Your task to perform on an android device: Go to Reddit.com Image 0: 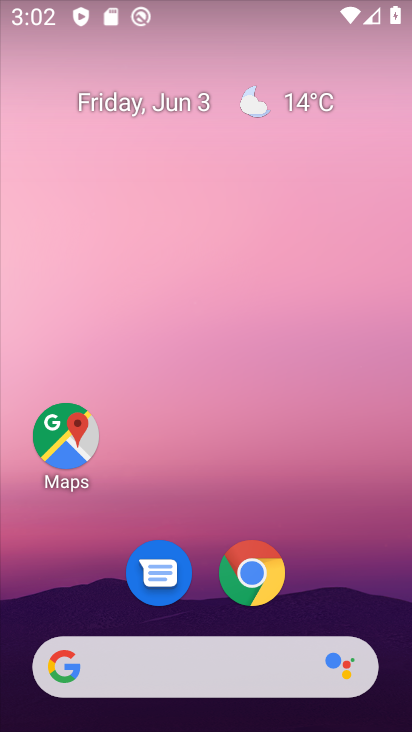
Step 0: drag from (205, 662) to (275, 12)
Your task to perform on an android device: Go to Reddit.com Image 1: 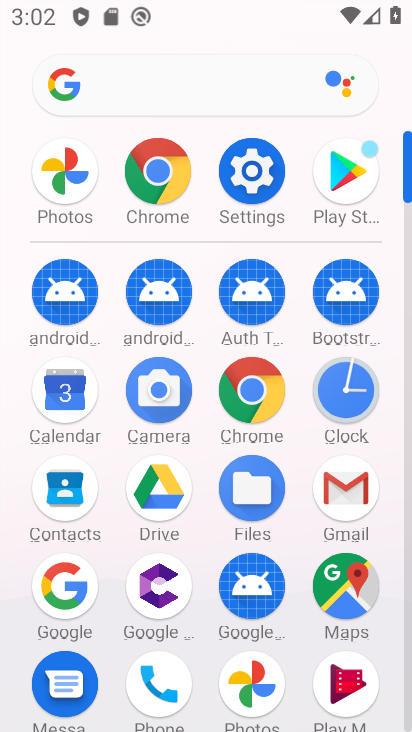
Step 1: click (257, 396)
Your task to perform on an android device: Go to Reddit.com Image 2: 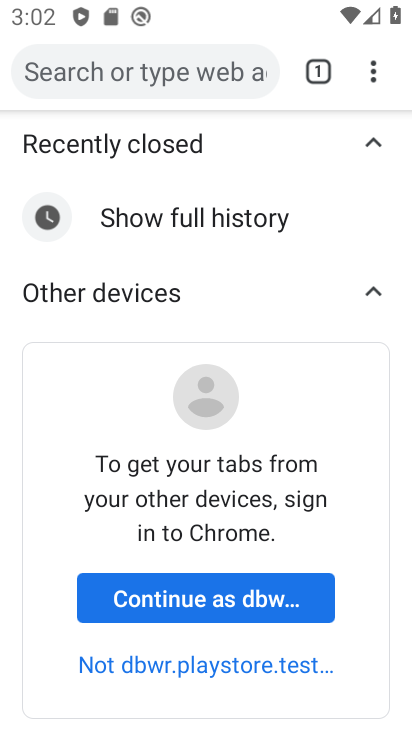
Step 2: click (244, 81)
Your task to perform on an android device: Go to Reddit.com Image 3: 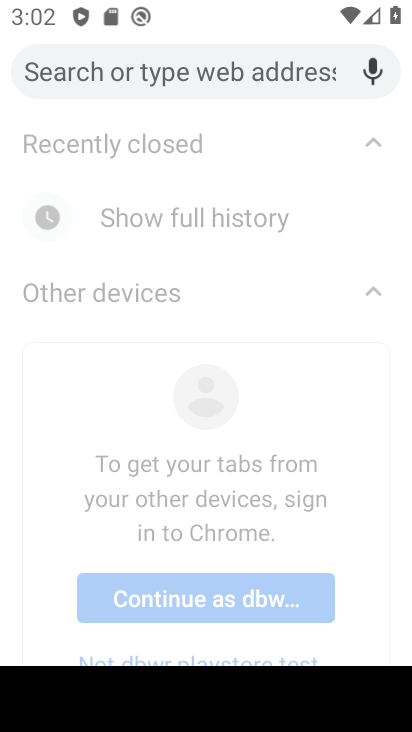
Step 3: type "reddit.com"
Your task to perform on an android device: Go to Reddit.com Image 4: 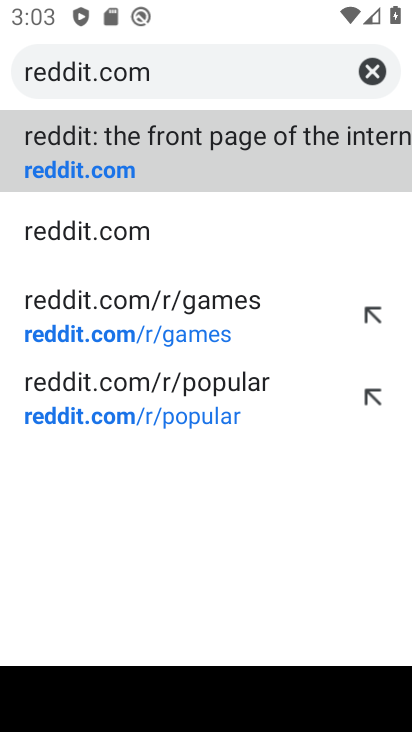
Step 4: click (379, 163)
Your task to perform on an android device: Go to Reddit.com Image 5: 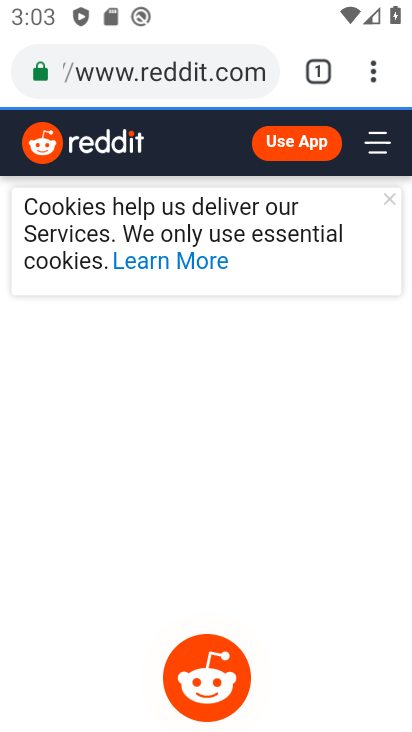
Step 5: task complete